Your task to perform on an android device: Open Yahoo.com Image 0: 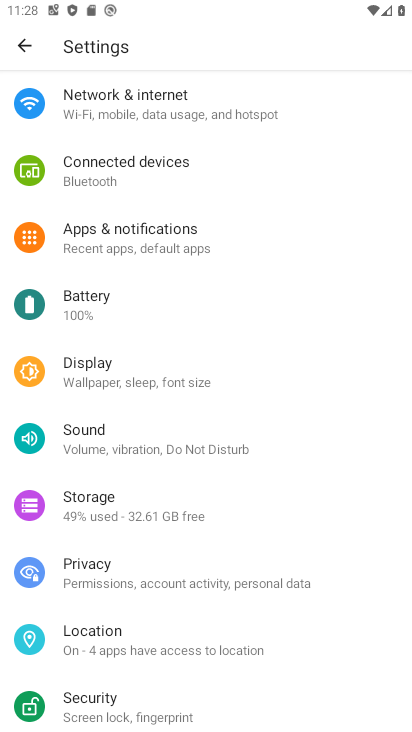
Step 0: press home button
Your task to perform on an android device: Open Yahoo.com Image 1: 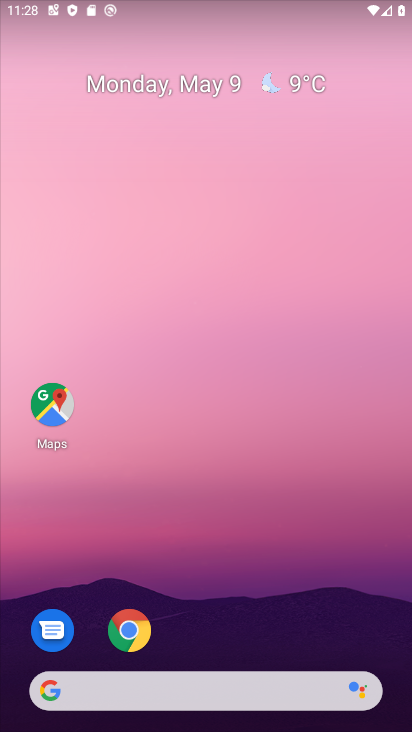
Step 1: click (125, 634)
Your task to perform on an android device: Open Yahoo.com Image 2: 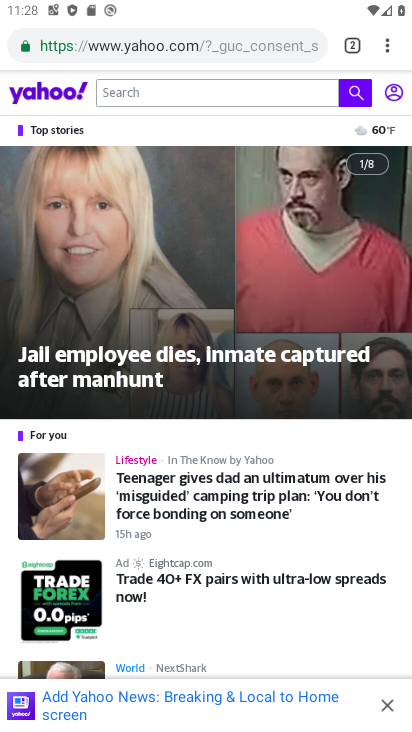
Step 2: task complete